Your task to perform on an android device: Go to internet settings Image 0: 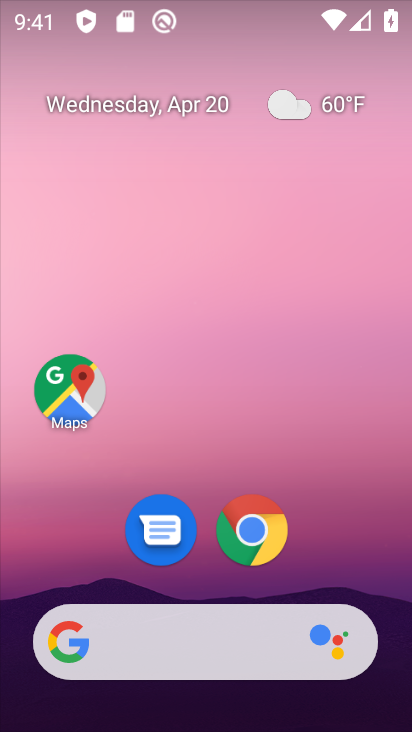
Step 0: drag from (344, 483) to (291, 58)
Your task to perform on an android device: Go to internet settings Image 1: 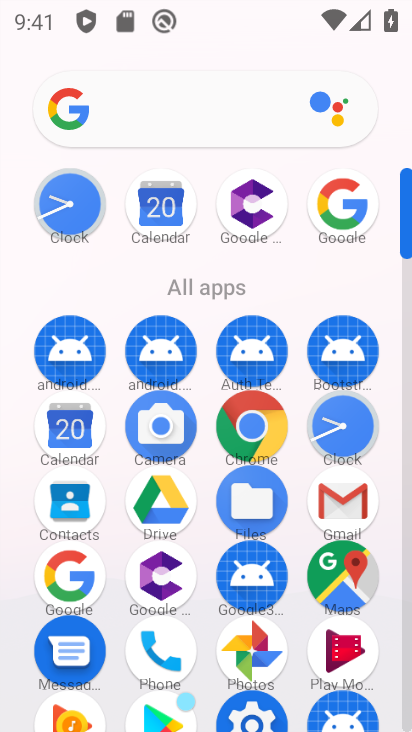
Step 1: drag from (196, 454) to (212, 152)
Your task to perform on an android device: Go to internet settings Image 2: 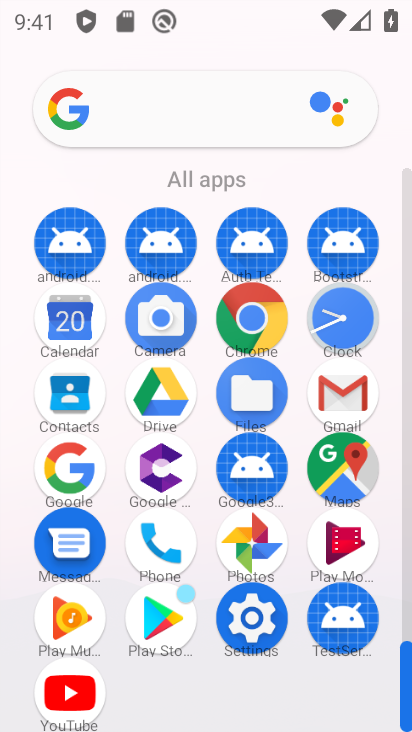
Step 2: click (253, 602)
Your task to perform on an android device: Go to internet settings Image 3: 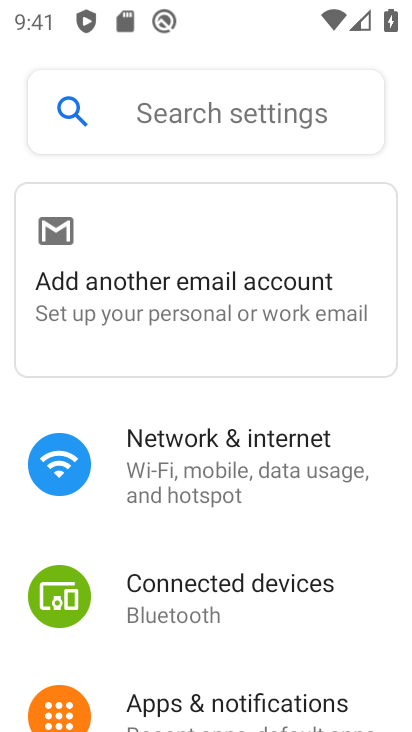
Step 3: click (255, 470)
Your task to perform on an android device: Go to internet settings Image 4: 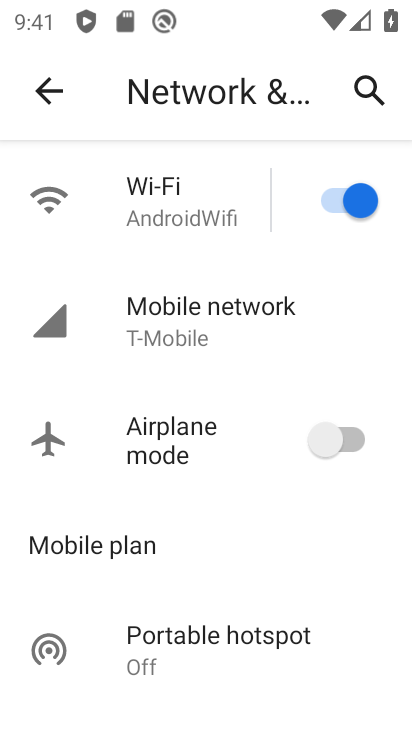
Step 4: task complete